Your task to perform on an android device: Show me popular games on the Play Store Image 0: 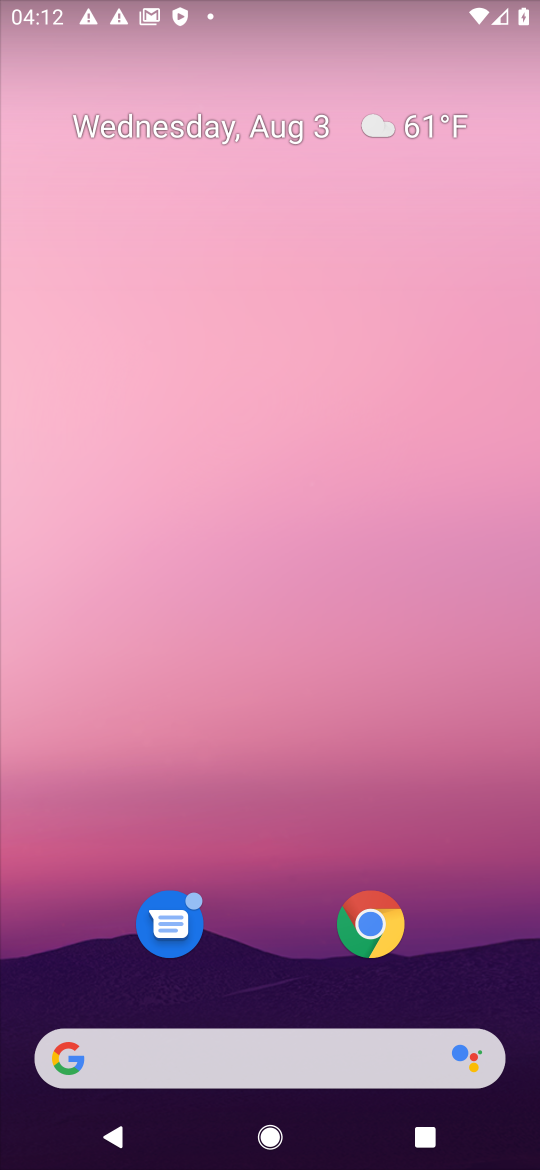
Step 0: drag from (281, 950) to (381, 349)
Your task to perform on an android device: Show me popular games on the Play Store Image 1: 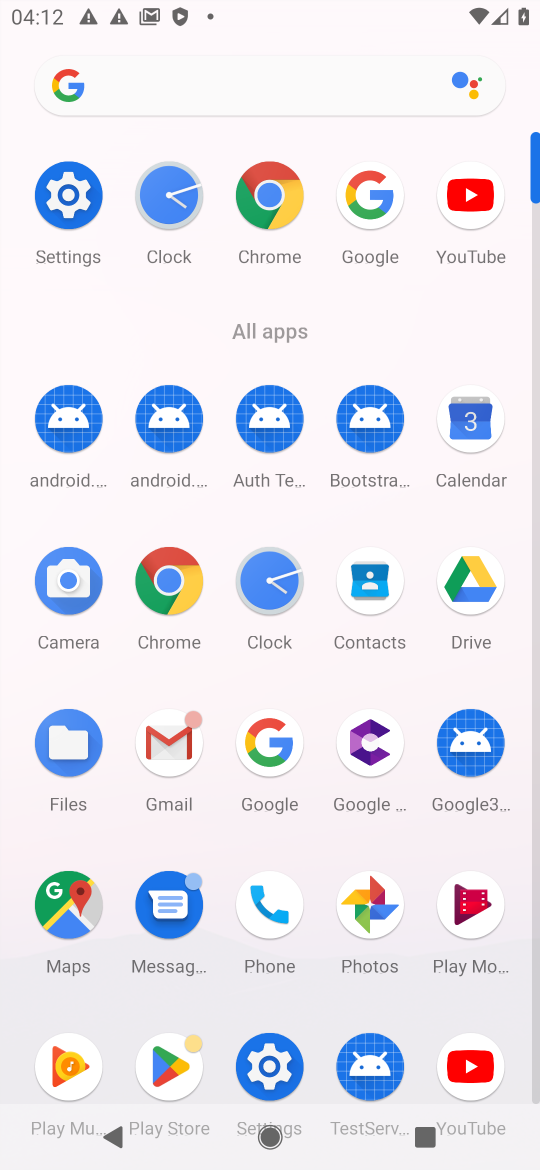
Step 1: click (156, 1058)
Your task to perform on an android device: Show me popular games on the Play Store Image 2: 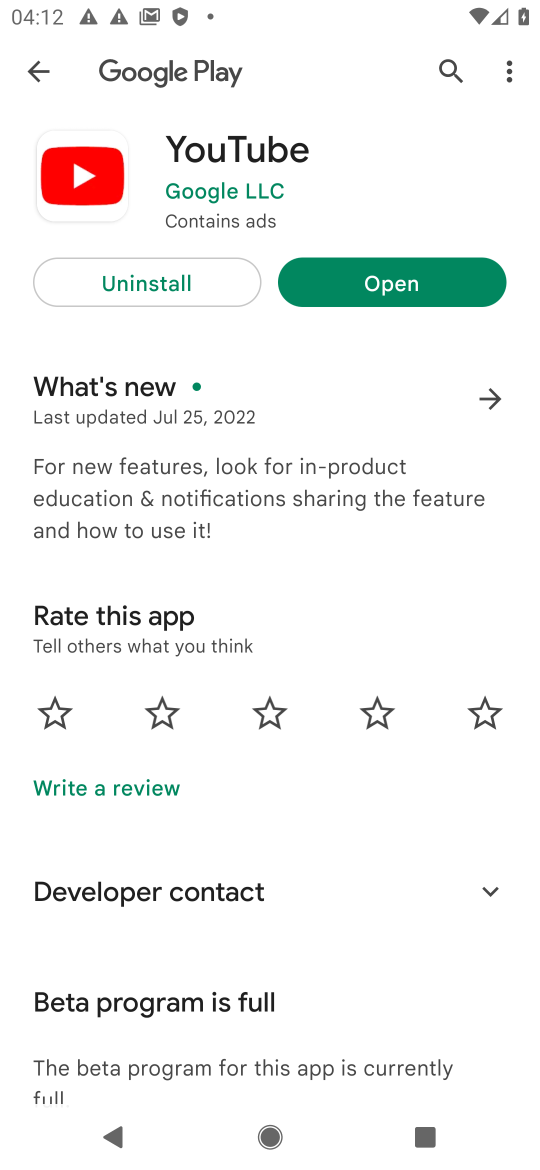
Step 2: click (45, 60)
Your task to perform on an android device: Show me popular games on the Play Store Image 3: 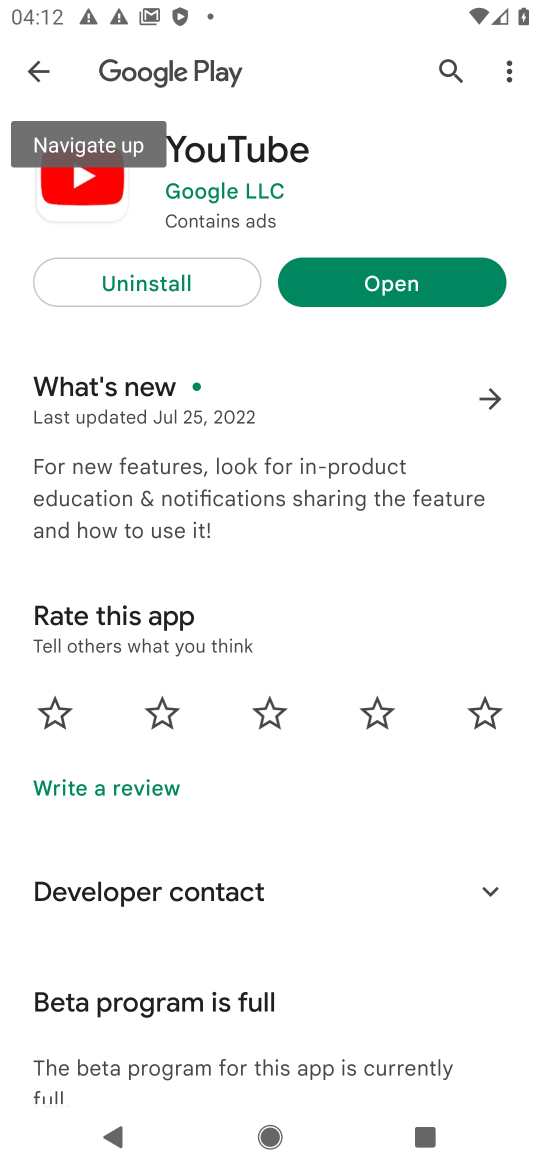
Step 3: click (45, 60)
Your task to perform on an android device: Show me popular games on the Play Store Image 4: 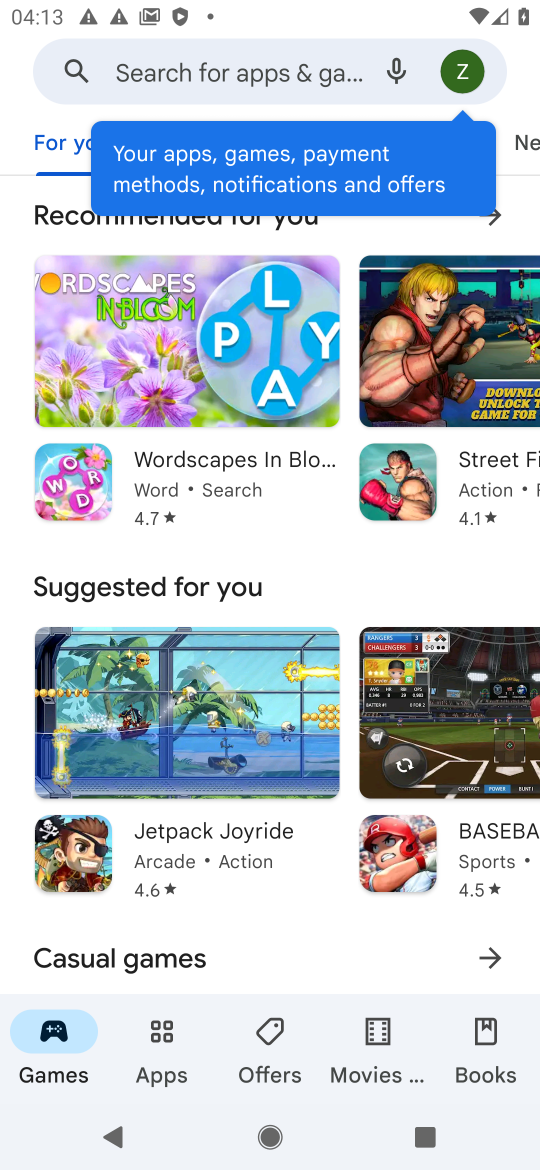
Step 4: click (203, 167)
Your task to perform on an android device: Show me popular games on the Play Store Image 5: 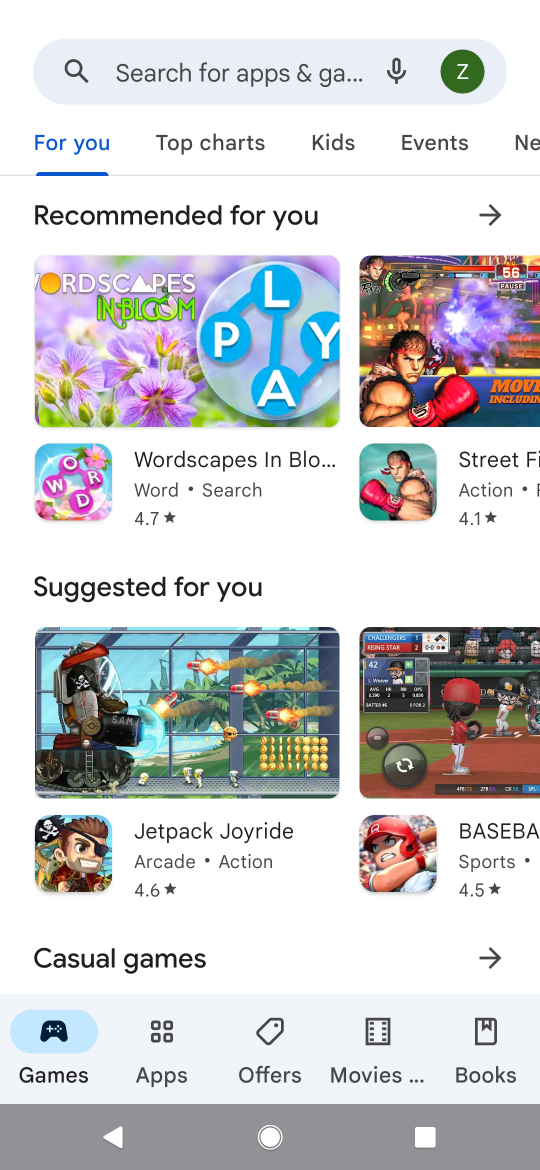
Step 5: click (176, 149)
Your task to perform on an android device: Show me popular games on the Play Store Image 6: 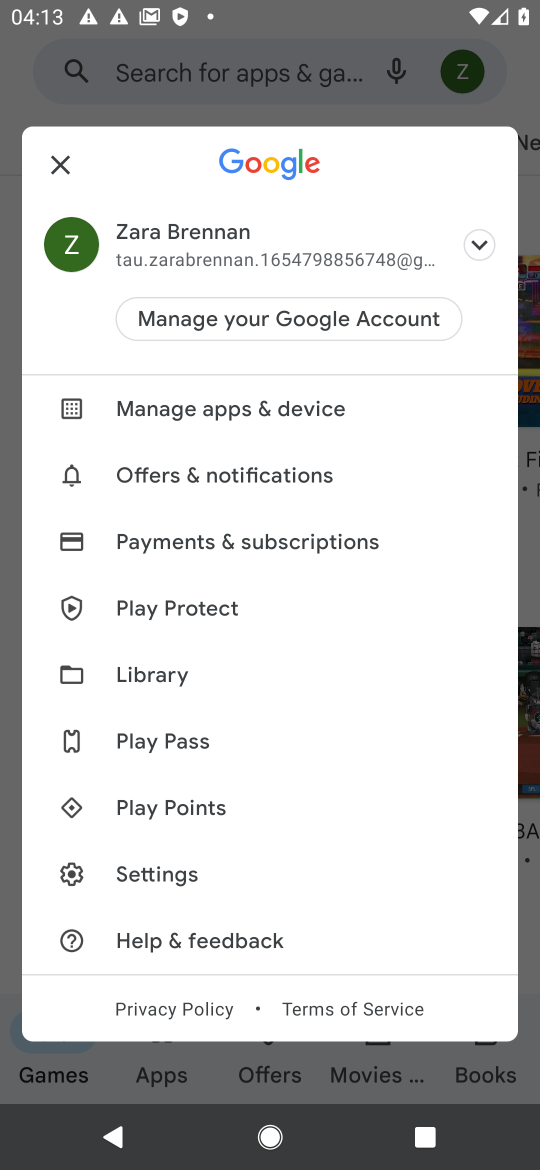
Step 6: click (50, 170)
Your task to perform on an android device: Show me popular games on the Play Store Image 7: 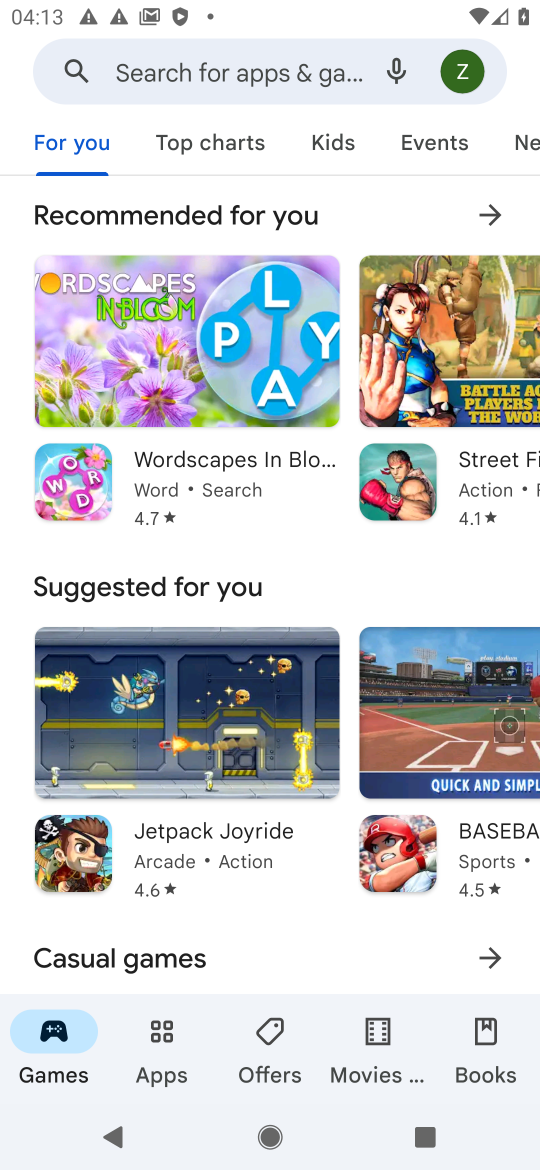
Step 7: click (194, 139)
Your task to perform on an android device: Show me popular games on the Play Store Image 8: 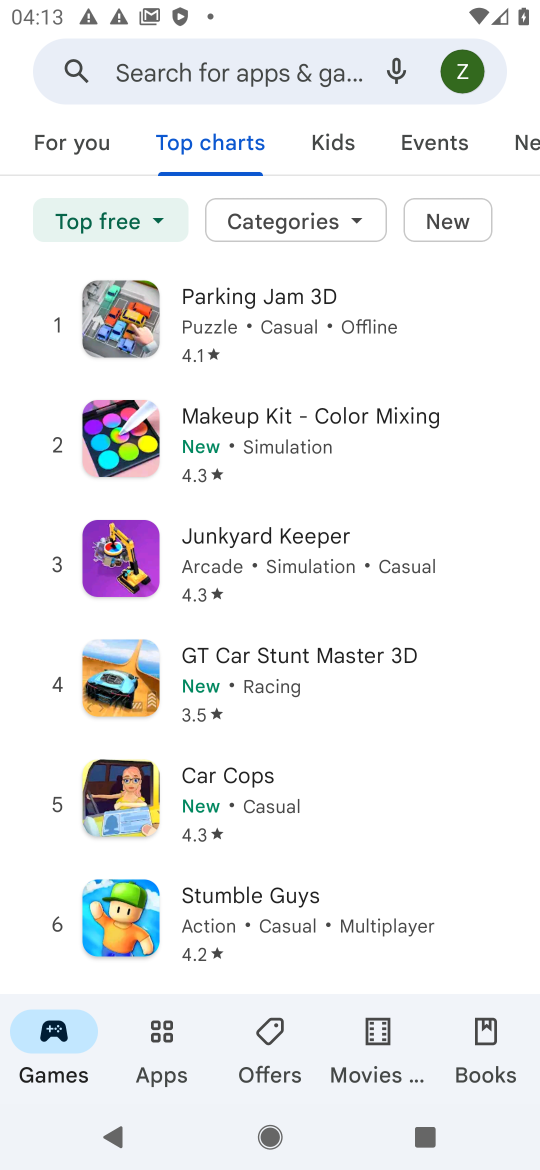
Step 8: task complete